Your task to perform on an android device: open wifi settings Image 0: 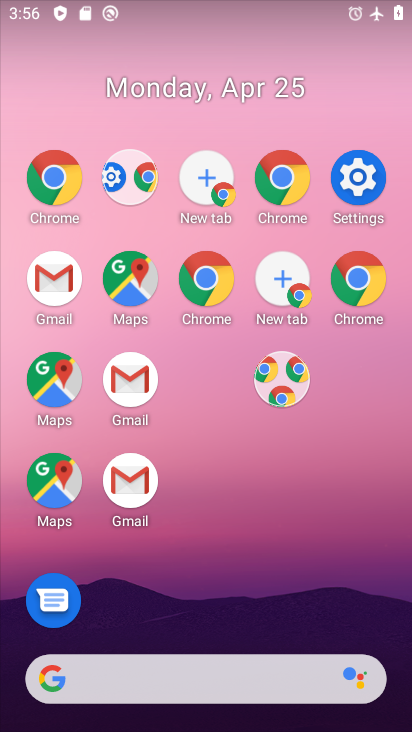
Step 0: drag from (213, 430) to (186, 112)
Your task to perform on an android device: open wifi settings Image 1: 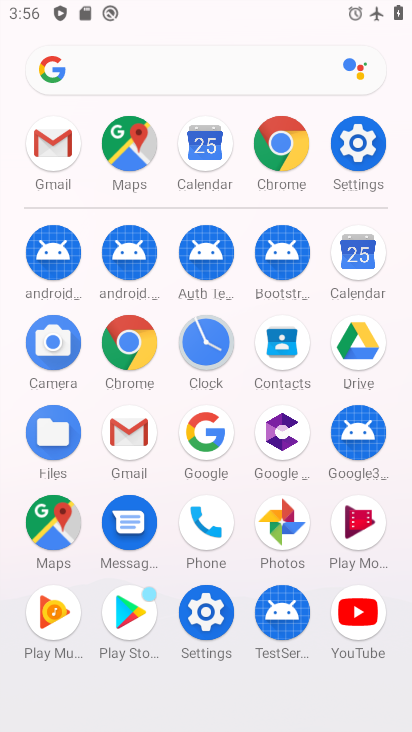
Step 1: click (352, 170)
Your task to perform on an android device: open wifi settings Image 2: 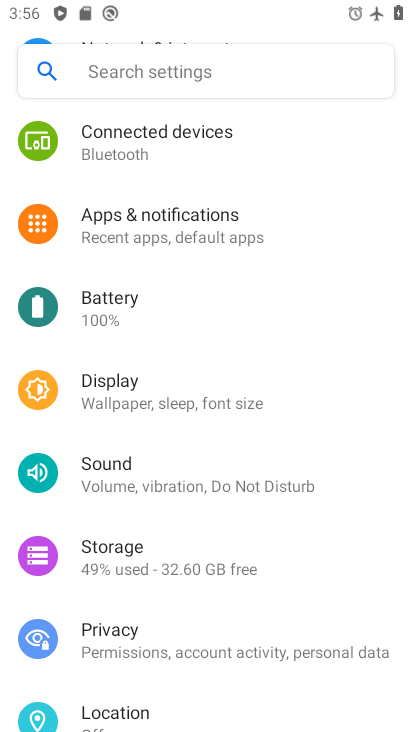
Step 2: drag from (153, 173) to (229, 513)
Your task to perform on an android device: open wifi settings Image 3: 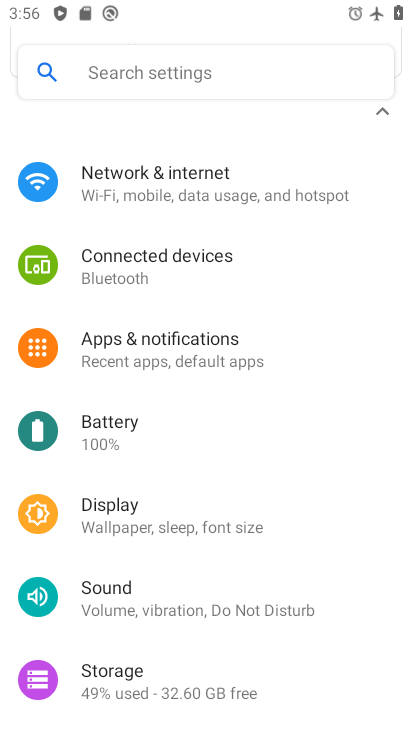
Step 3: drag from (161, 347) to (161, 536)
Your task to perform on an android device: open wifi settings Image 4: 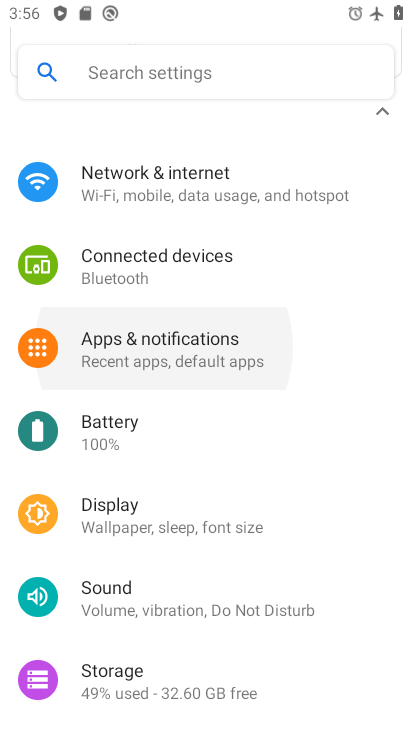
Step 4: drag from (125, 278) to (124, 652)
Your task to perform on an android device: open wifi settings Image 5: 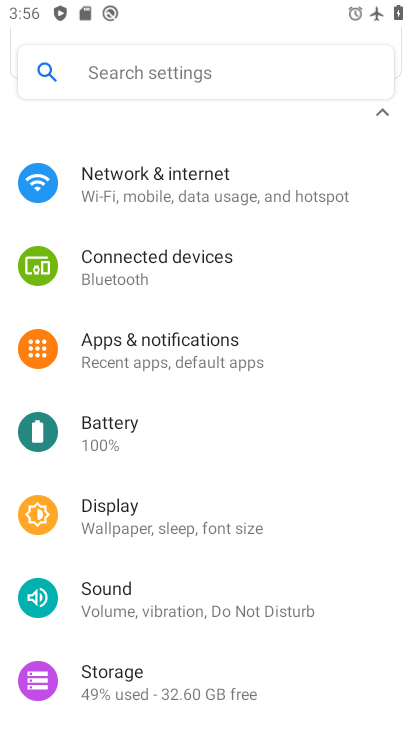
Step 5: click (167, 167)
Your task to perform on an android device: open wifi settings Image 6: 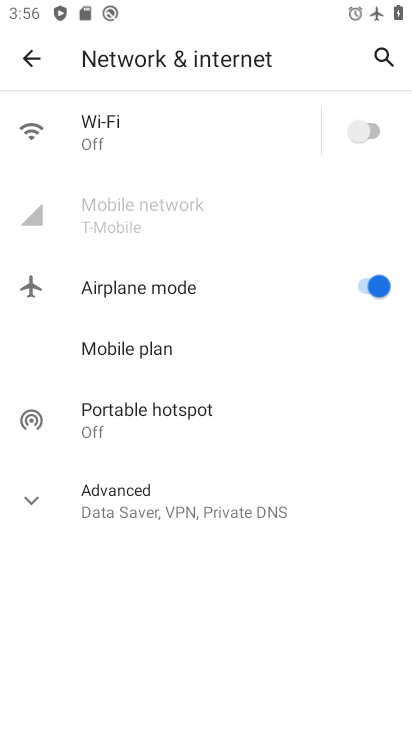
Step 6: task complete